Your task to perform on an android device: Open Google Maps Image 0: 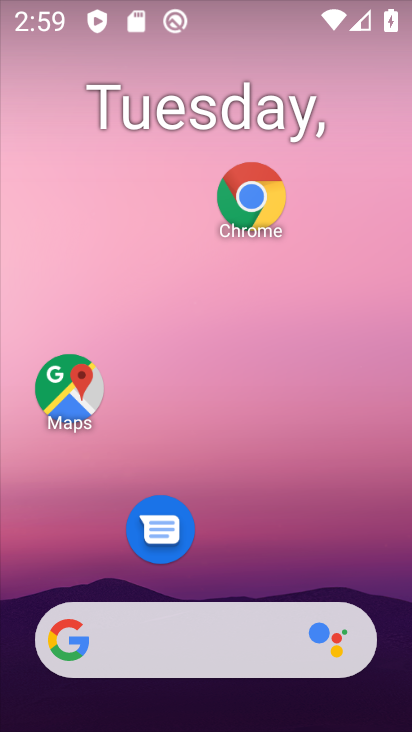
Step 0: click (70, 393)
Your task to perform on an android device: Open Google Maps Image 1: 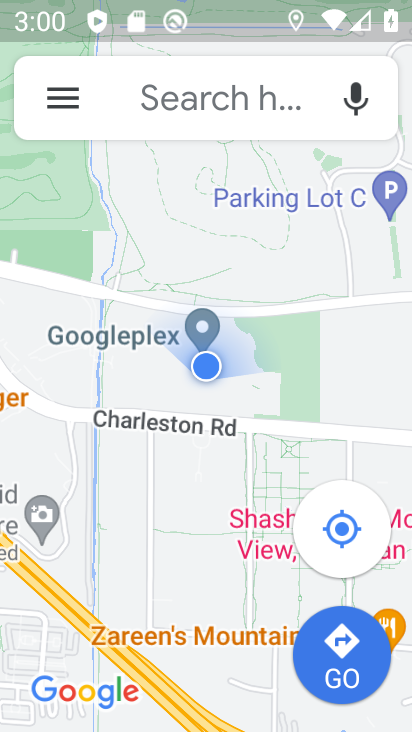
Step 1: task complete